Your task to perform on an android device: turn on bluetooth scan Image 0: 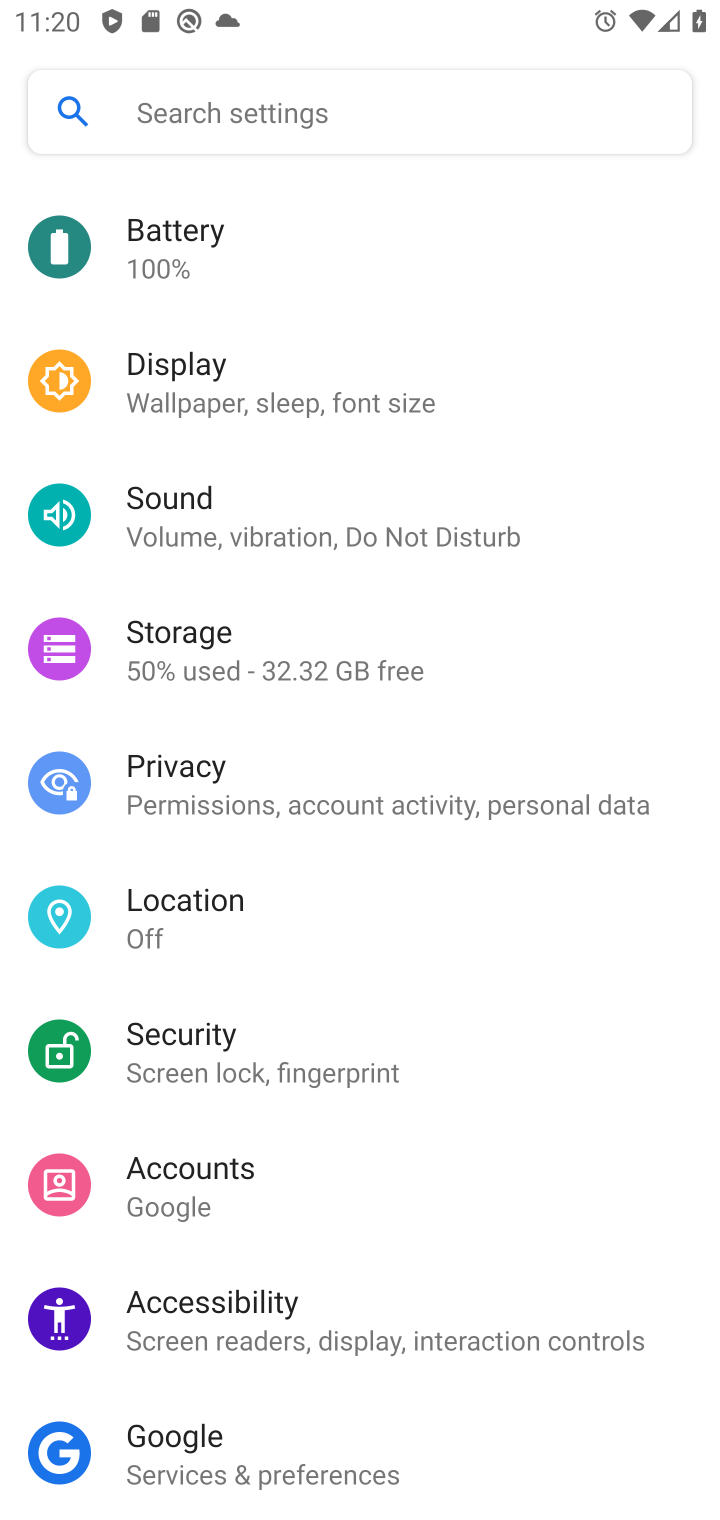
Step 0: press home button
Your task to perform on an android device: turn on bluetooth scan Image 1: 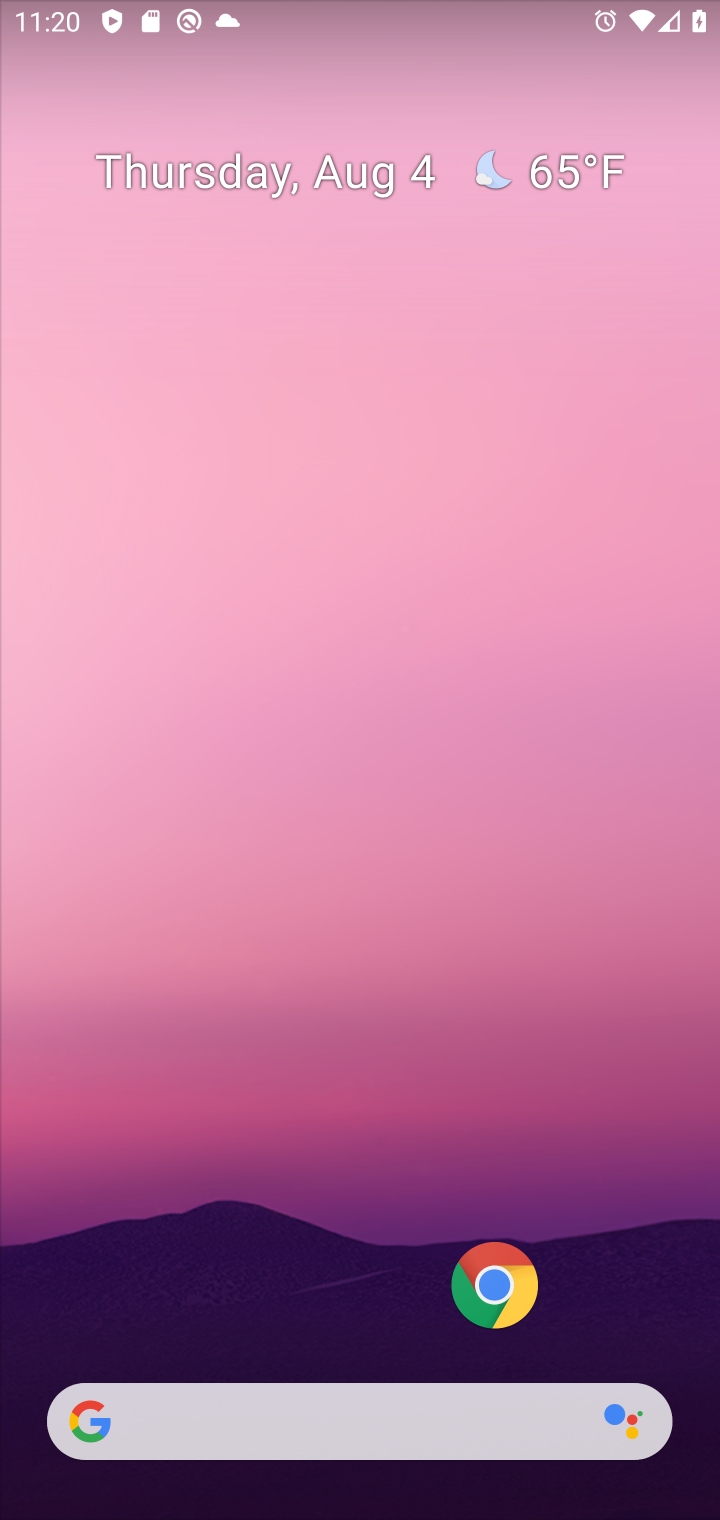
Step 1: drag from (304, 1408) to (226, 212)
Your task to perform on an android device: turn on bluetooth scan Image 2: 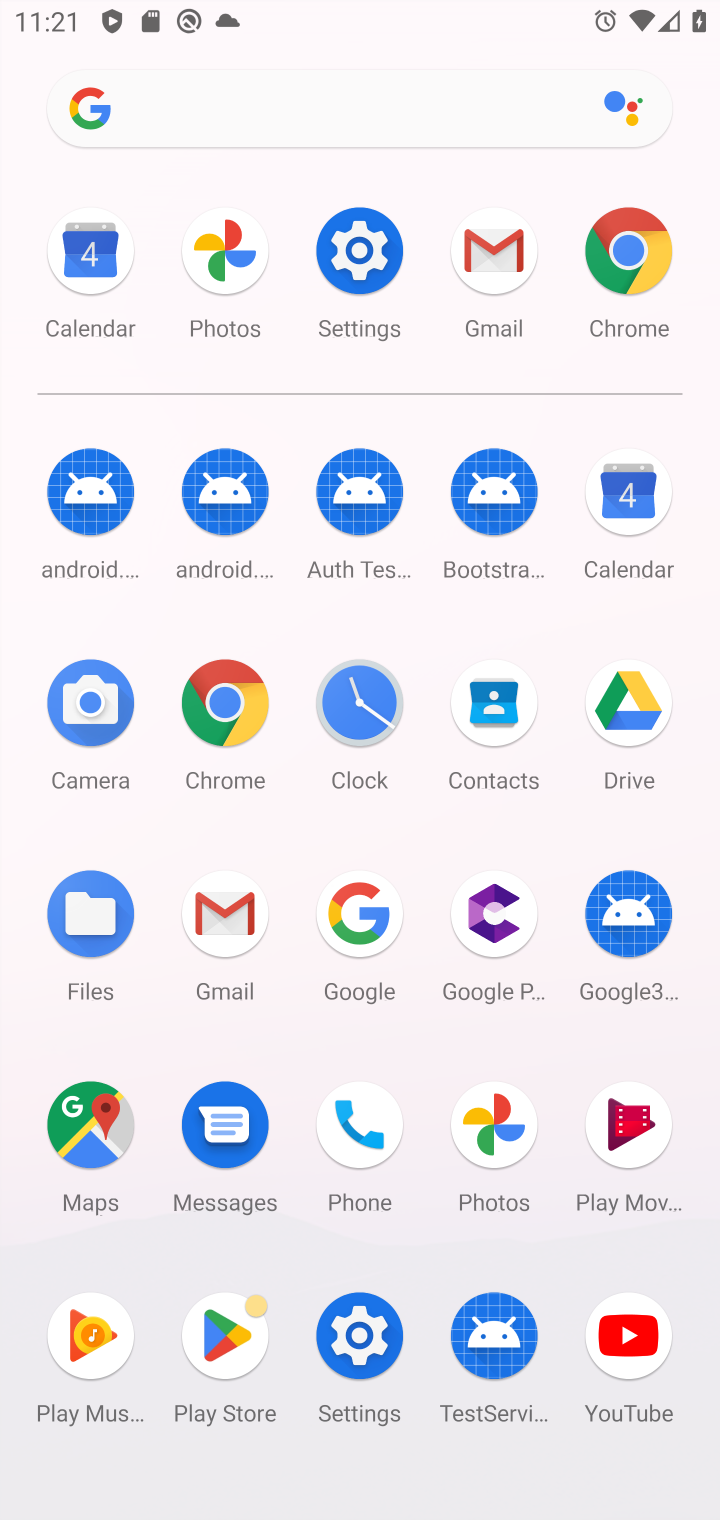
Step 2: click (362, 1324)
Your task to perform on an android device: turn on bluetooth scan Image 3: 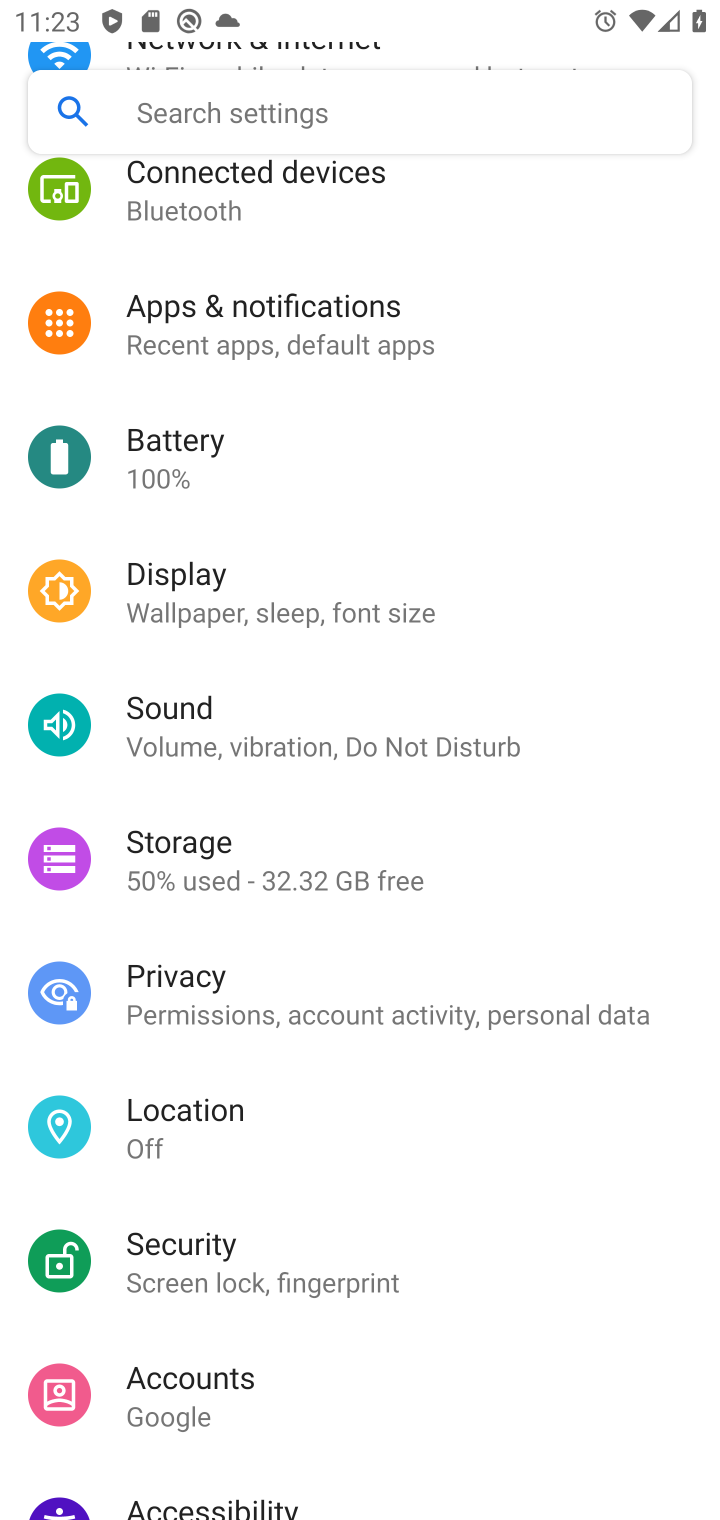
Step 3: drag from (396, 1038) to (211, 315)
Your task to perform on an android device: turn on bluetooth scan Image 4: 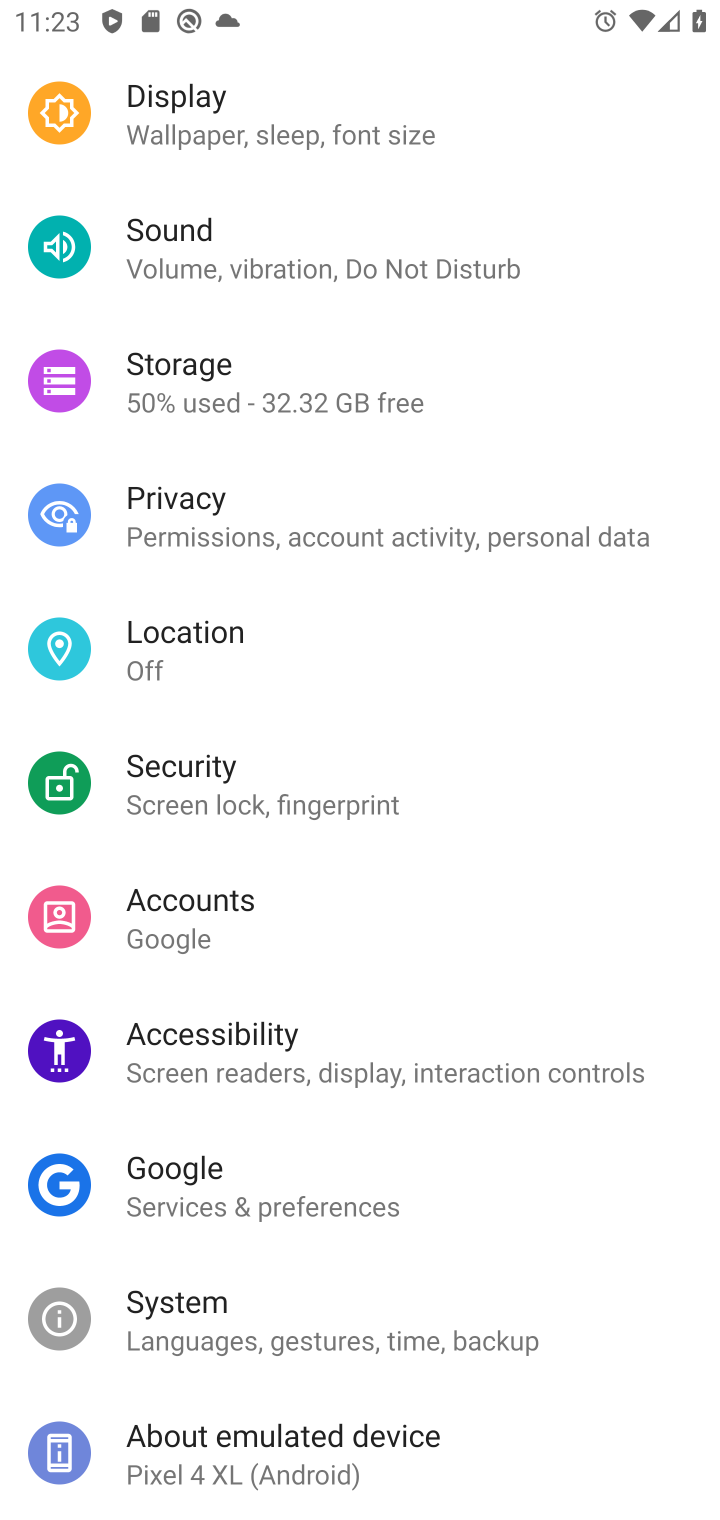
Step 4: click (127, 656)
Your task to perform on an android device: turn on bluetooth scan Image 5: 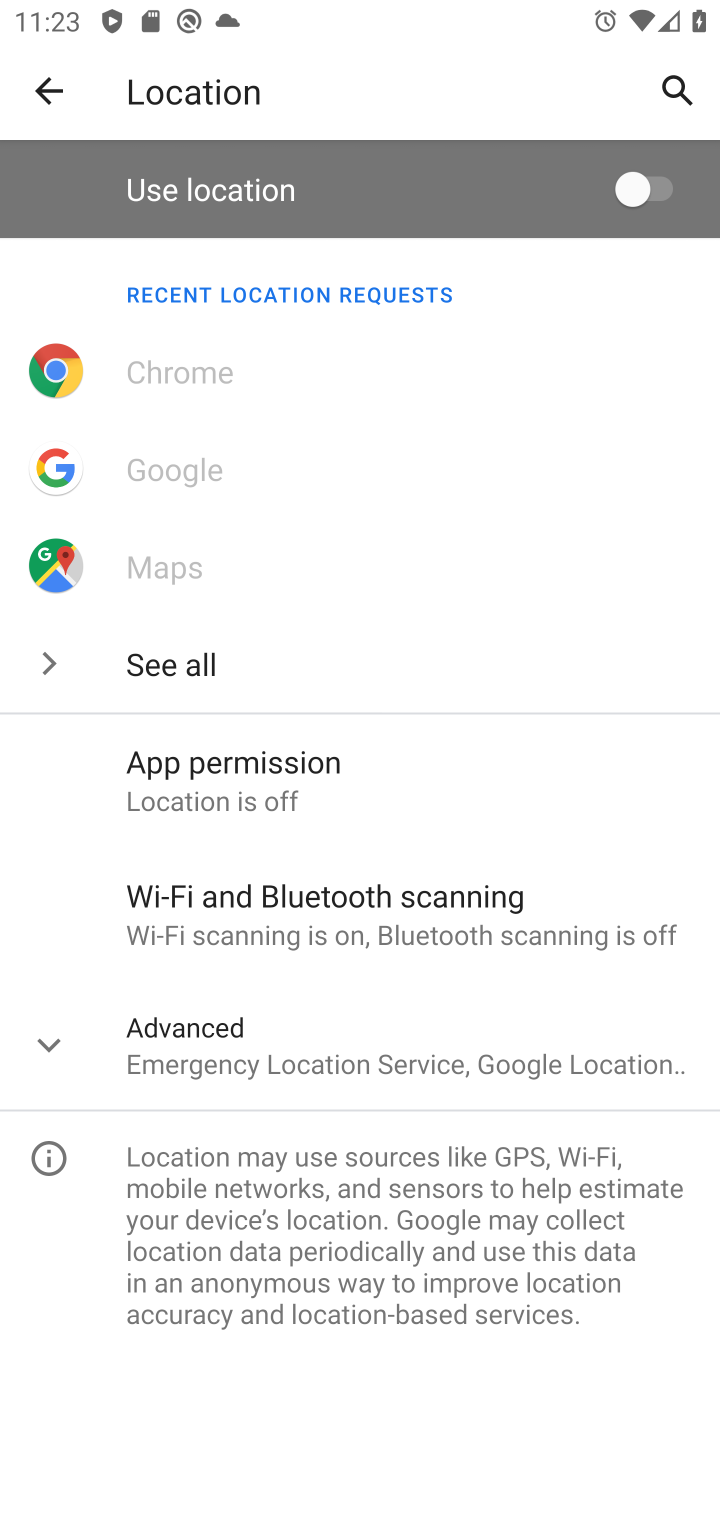
Step 5: click (308, 208)
Your task to perform on an android device: turn on bluetooth scan Image 6: 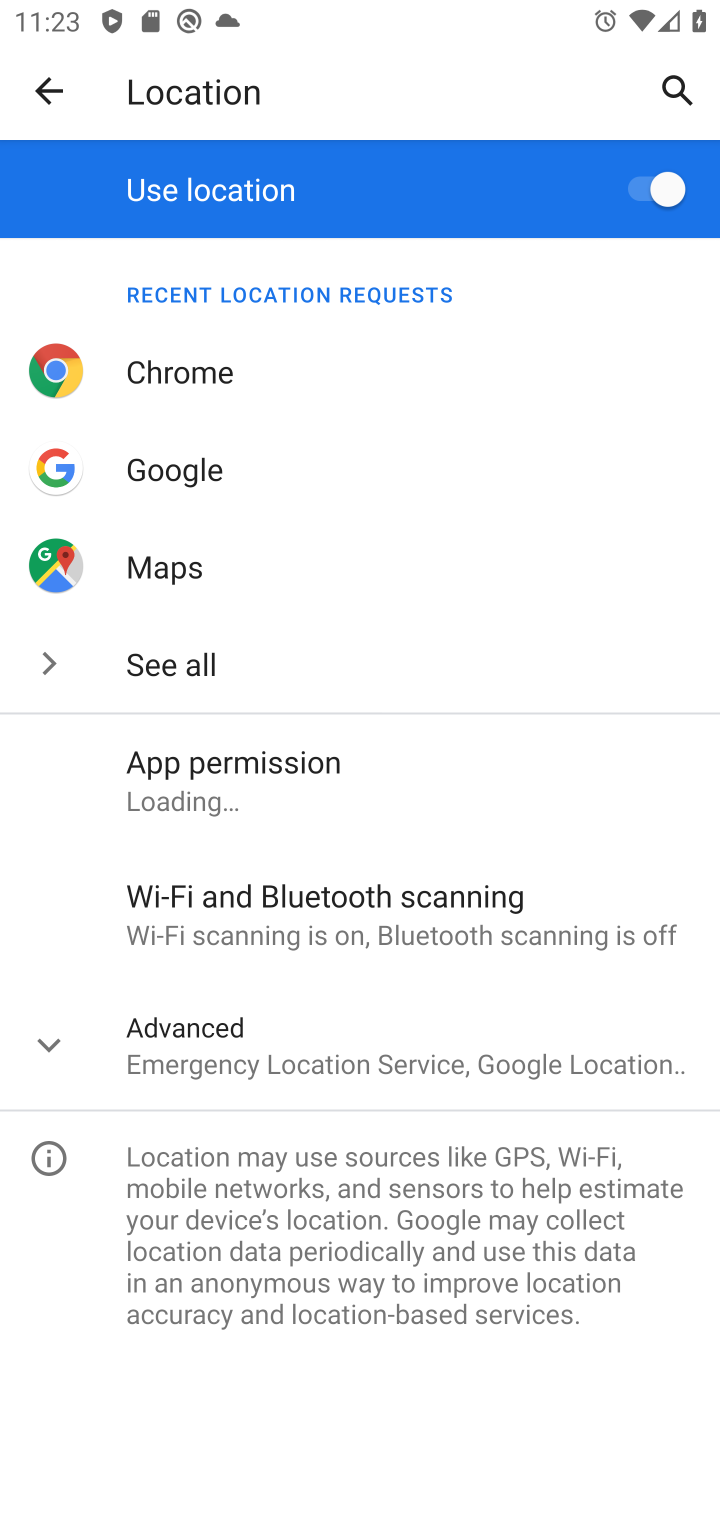
Step 6: task complete